Your task to perform on an android device: turn notification dots on Image 0: 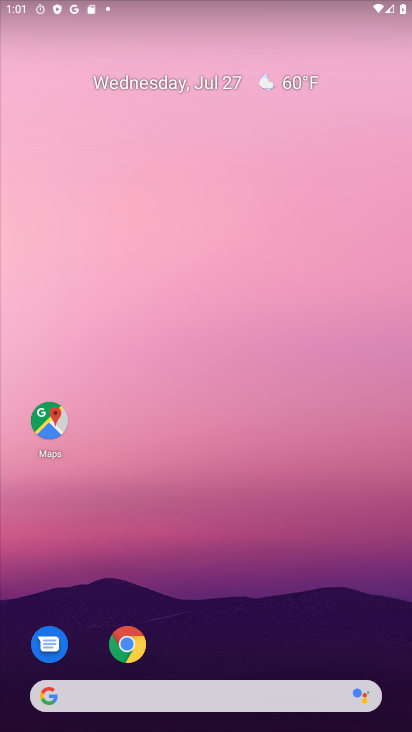
Step 0: drag from (188, 591) to (185, 170)
Your task to perform on an android device: turn notification dots on Image 1: 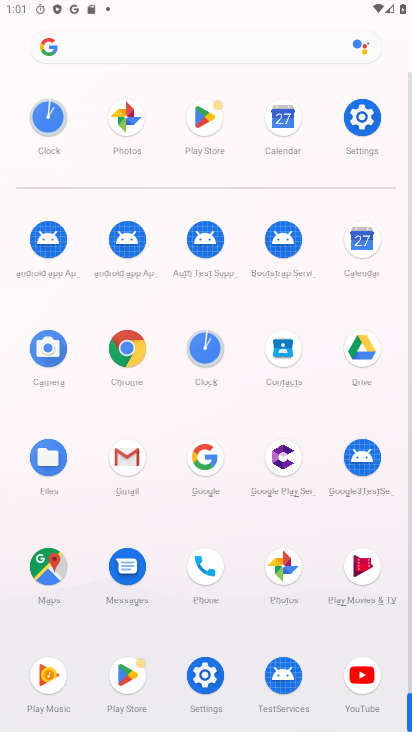
Step 1: click (353, 112)
Your task to perform on an android device: turn notification dots on Image 2: 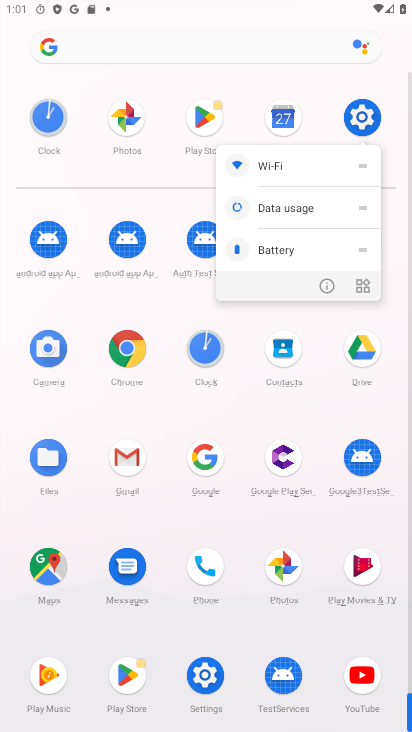
Step 2: click (332, 281)
Your task to perform on an android device: turn notification dots on Image 3: 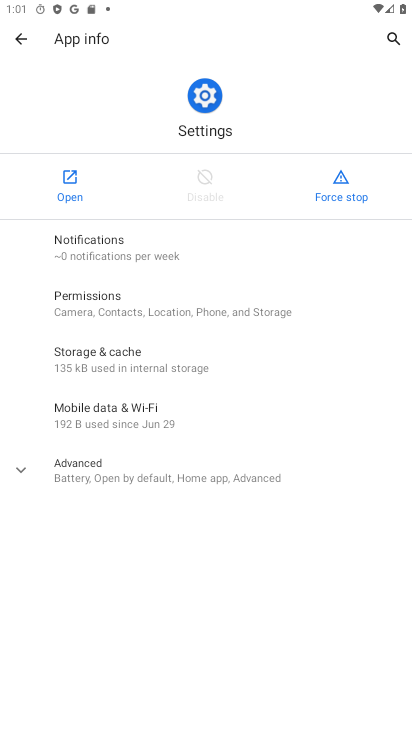
Step 3: drag from (109, 493) to (128, 248)
Your task to perform on an android device: turn notification dots on Image 4: 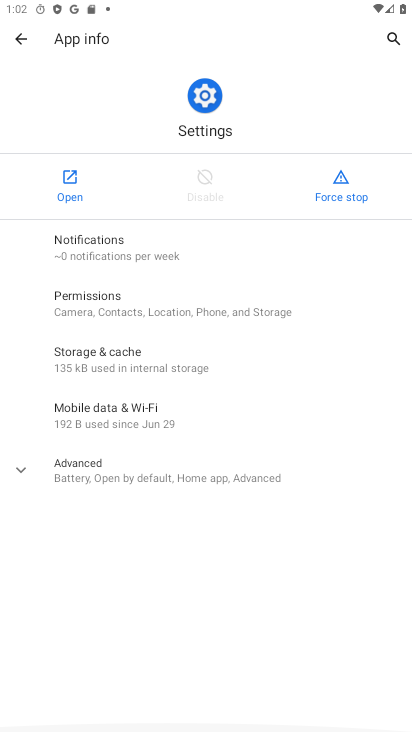
Step 4: click (84, 163)
Your task to perform on an android device: turn notification dots on Image 5: 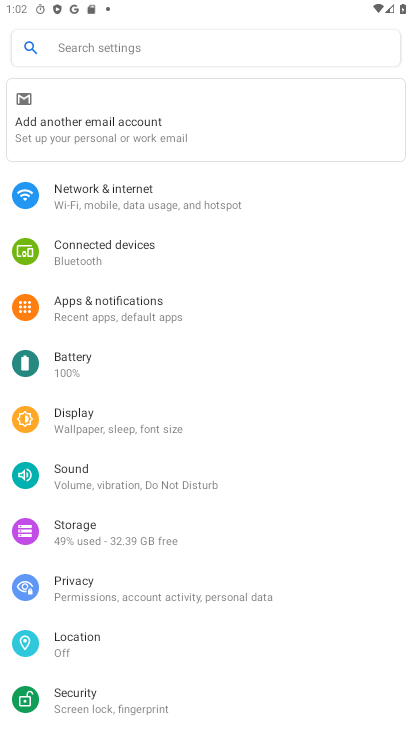
Step 5: drag from (110, 158) to (6, 3)
Your task to perform on an android device: turn notification dots on Image 6: 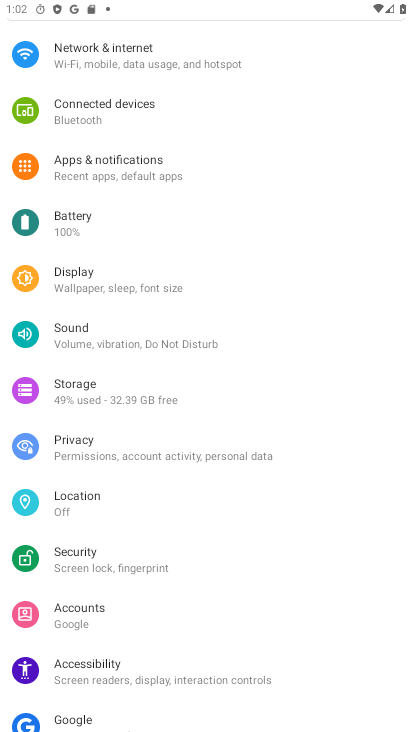
Step 6: click (95, 488)
Your task to perform on an android device: turn notification dots on Image 7: 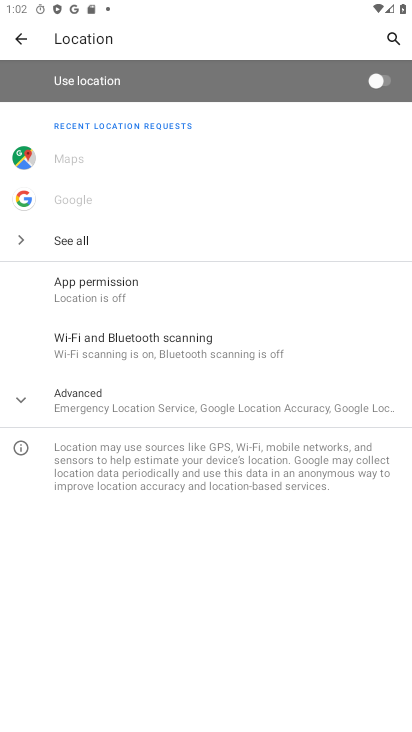
Step 7: click (13, 29)
Your task to perform on an android device: turn notification dots on Image 8: 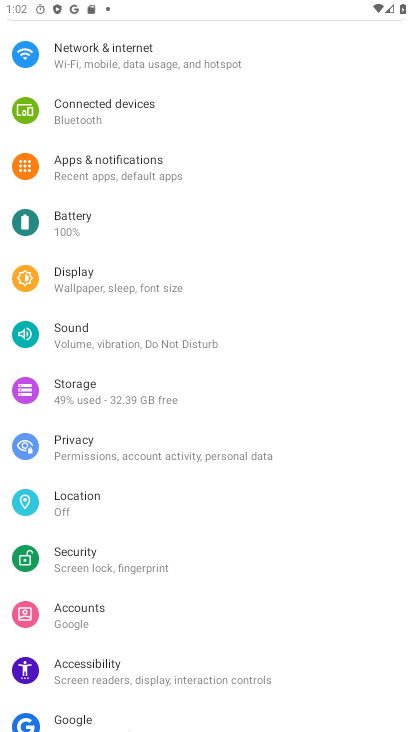
Step 8: click (166, 172)
Your task to perform on an android device: turn notification dots on Image 9: 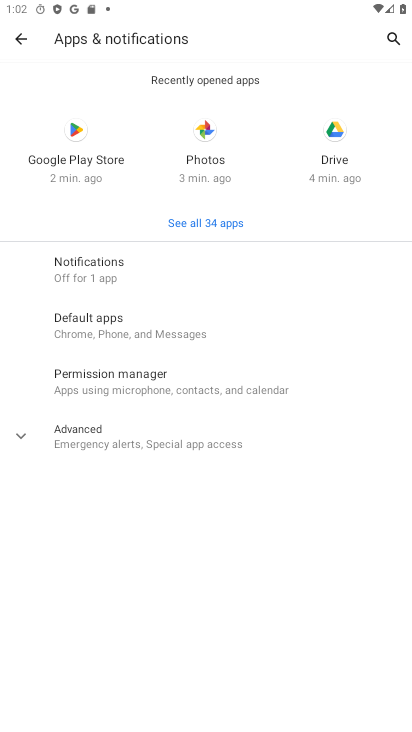
Step 9: click (211, 239)
Your task to perform on an android device: turn notification dots on Image 10: 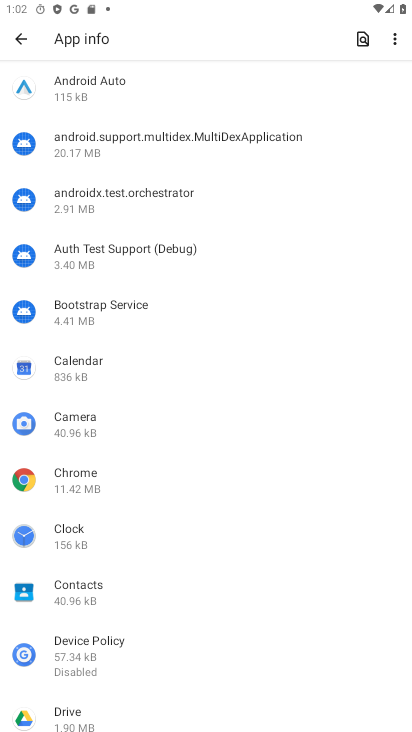
Step 10: click (6, 34)
Your task to perform on an android device: turn notification dots on Image 11: 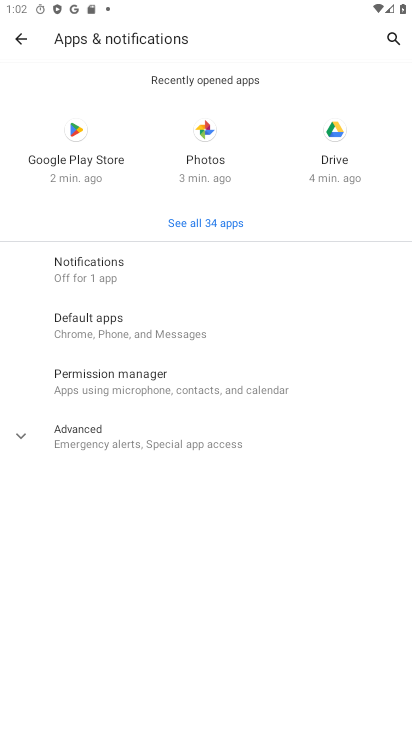
Step 11: click (119, 251)
Your task to perform on an android device: turn notification dots on Image 12: 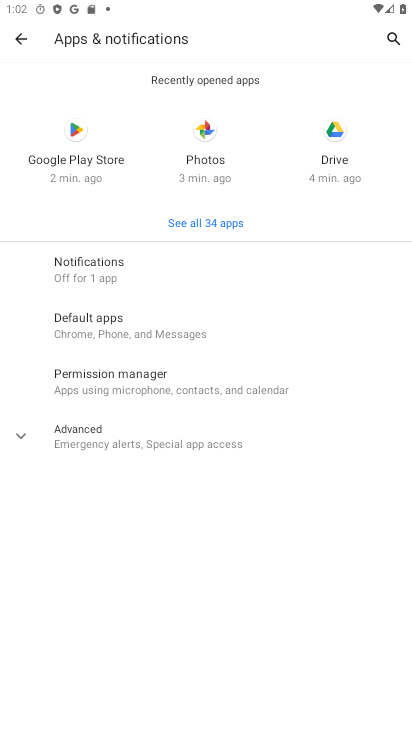
Step 12: click (102, 243)
Your task to perform on an android device: turn notification dots on Image 13: 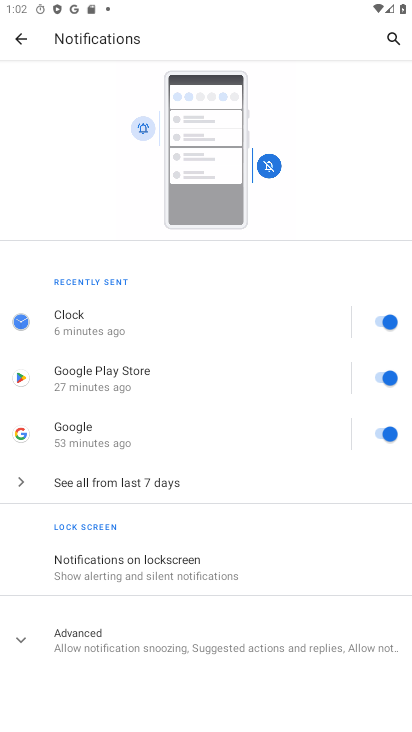
Step 13: drag from (203, 424) to (257, 204)
Your task to perform on an android device: turn notification dots on Image 14: 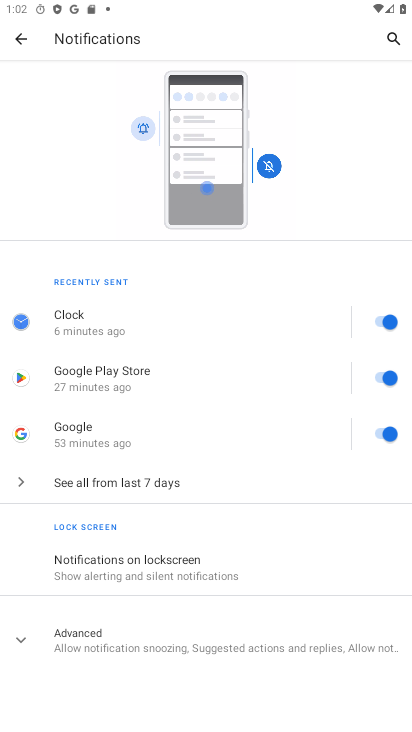
Step 14: click (112, 650)
Your task to perform on an android device: turn notification dots on Image 15: 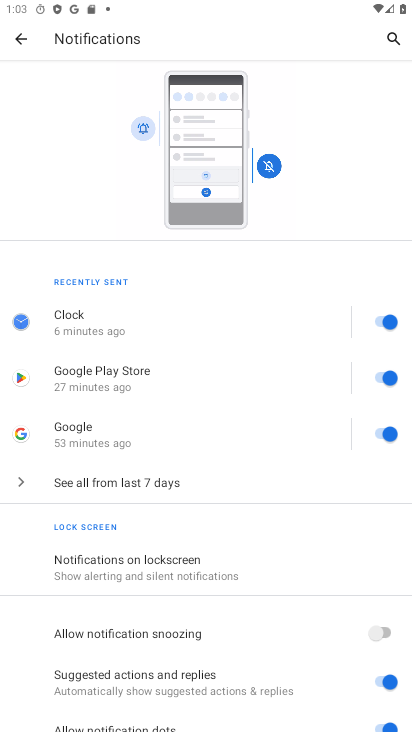
Step 15: task complete